Your task to perform on an android device: Add rayovac triple a to the cart on ebay.com, then select checkout. Image 0: 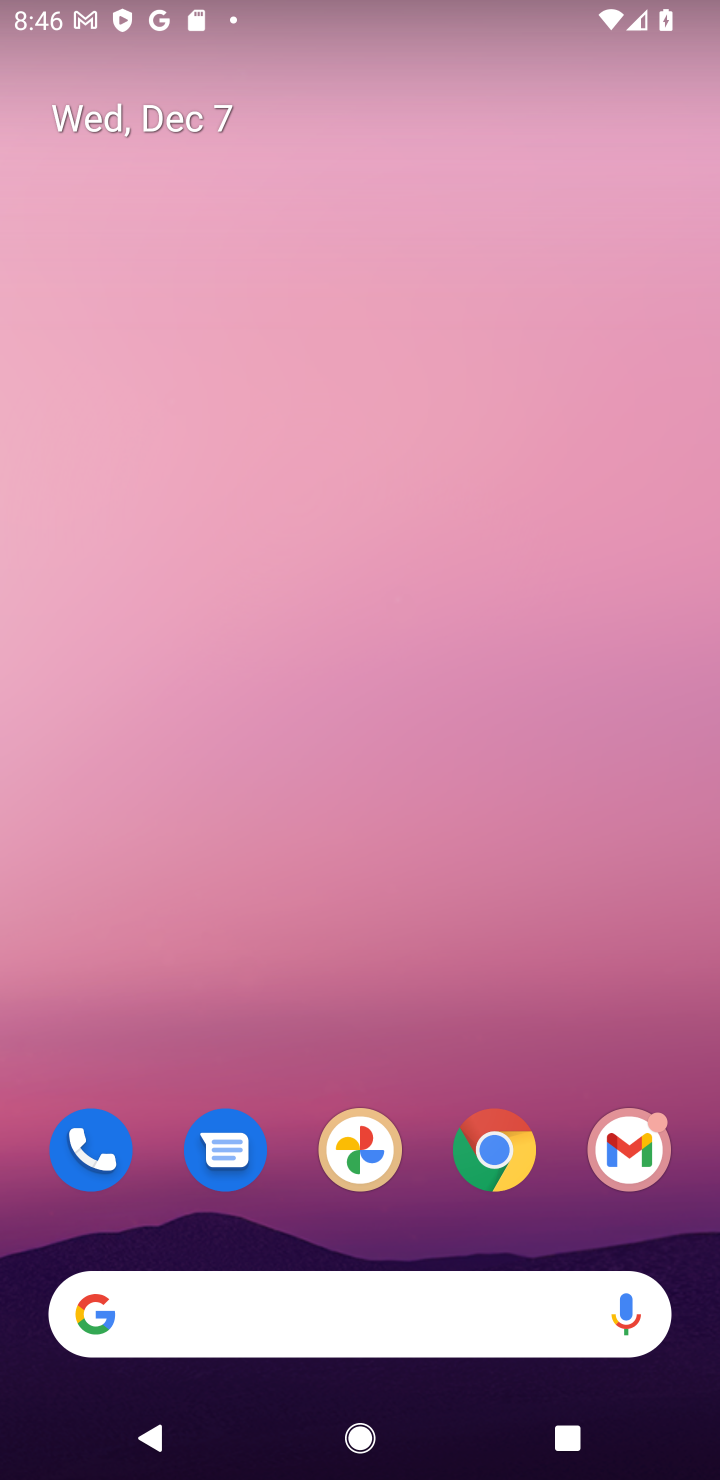
Step 0: click (485, 1142)
Your task to perform on an android device: Add rayovac triple a to the cart on ebay.com, then select checkout. Image 1: 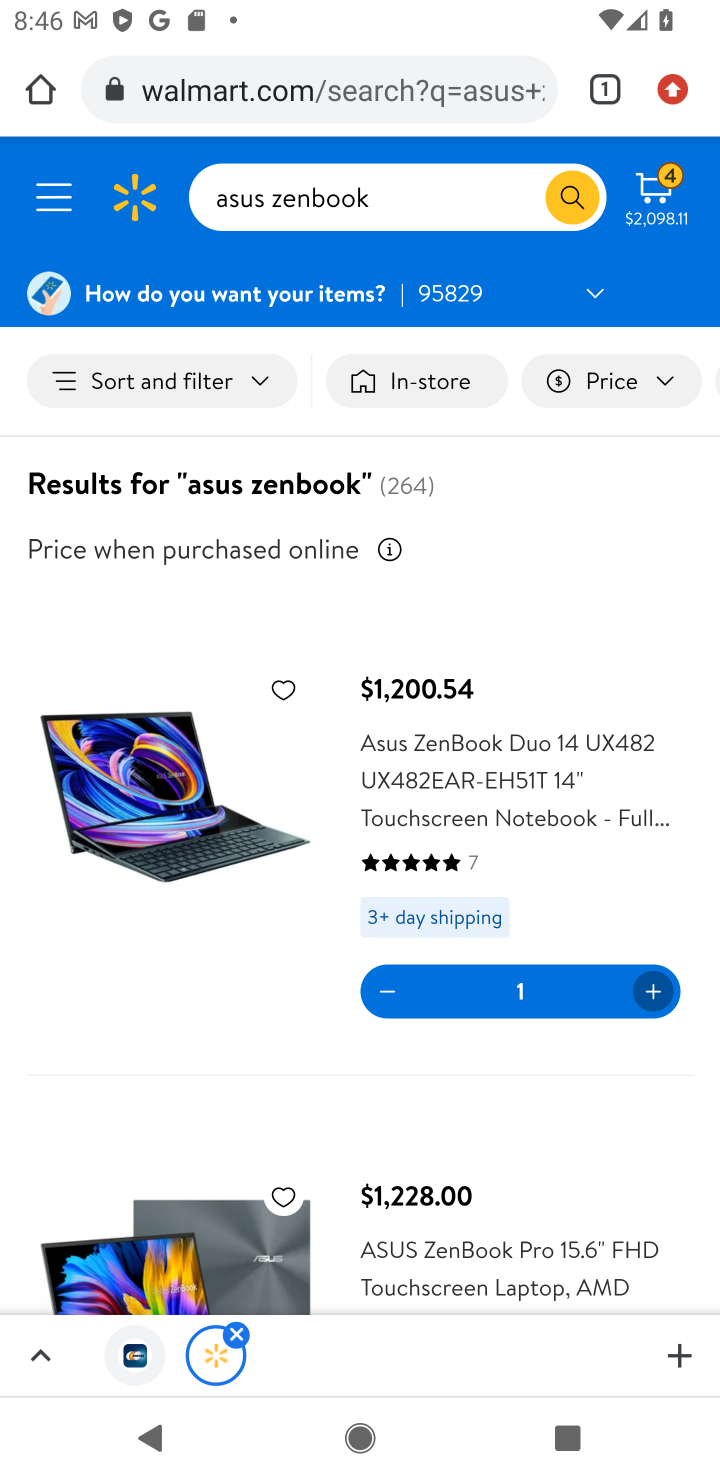
Step 1: click (280, 93)
Your task to perform on an android device: Add rayovac triple a to the cart on ebay.com, then select checkout. Image 2: 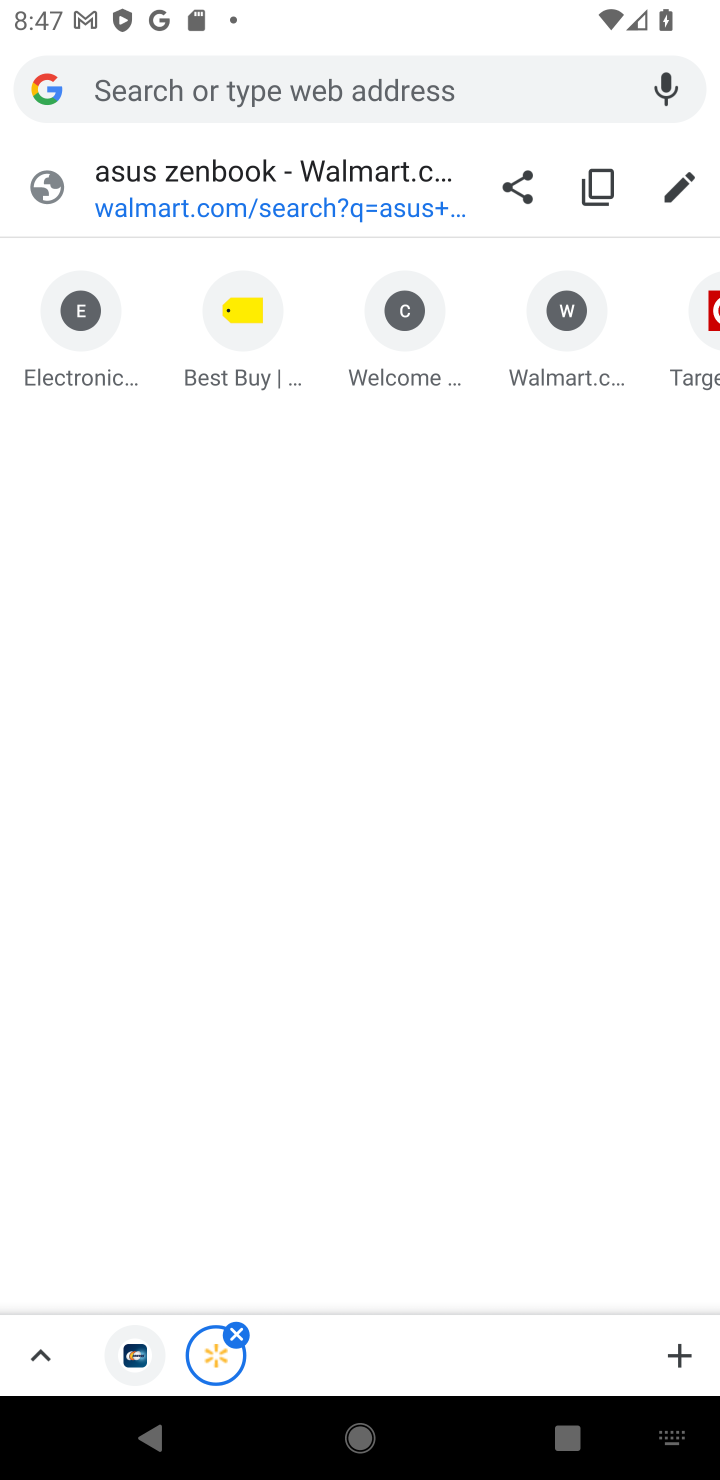
Step 2: type "ebay.com"
Your task to perform on an android device: Add rayovac triple a to the cart on ebay.com, then select checkout. Image 3: 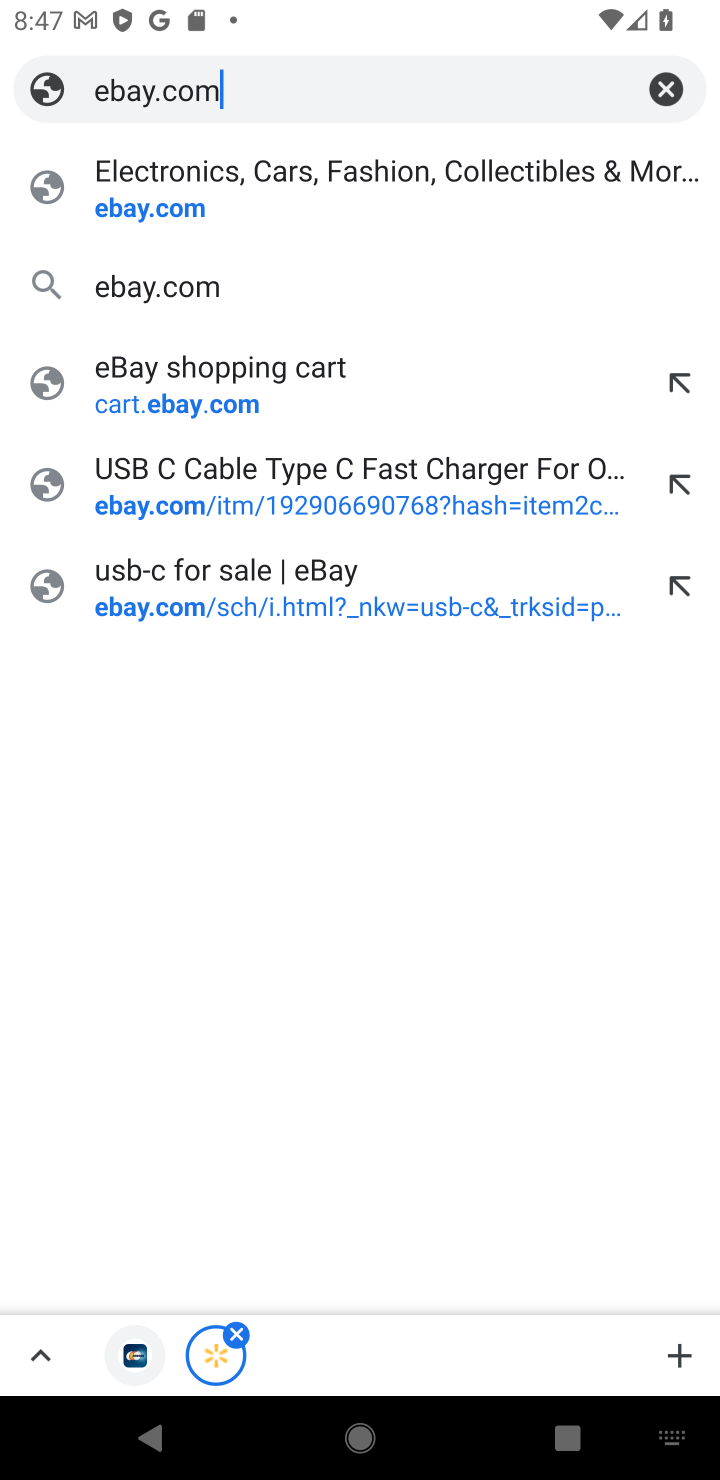
Step 3: press enter
Your task to perform on an android device: Add rayovac triple a to the cart on ebay.com, then select checkout. Image 4: 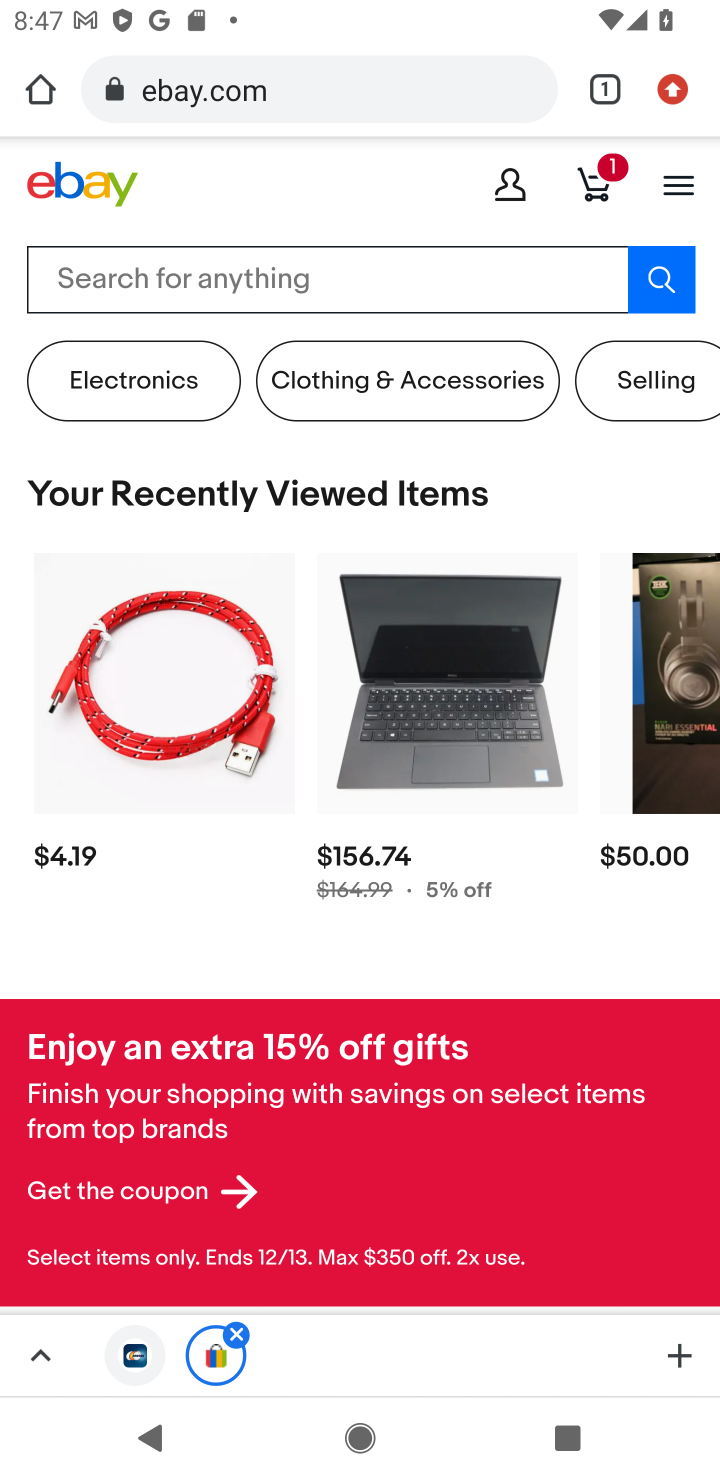
Step 4: click (333, 293)
Your task to perform on an android device: Add rayovac triple a to the cart on ebay.com, then select checkout. Image 5: 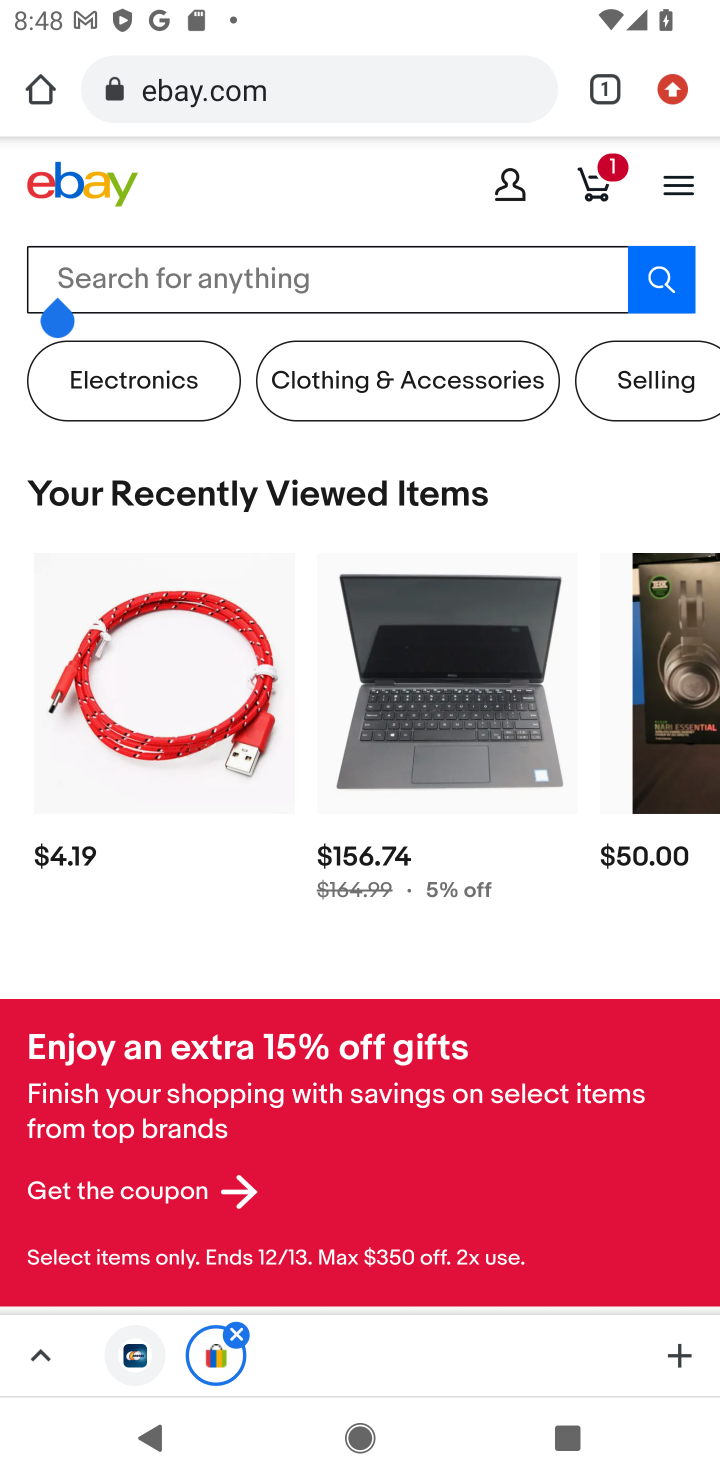
Step 5: type "rayovac triple a"
Your task to perform on an android device: Add rayovac triple a to the cart on ebay.com, then select checkout. Image 6: 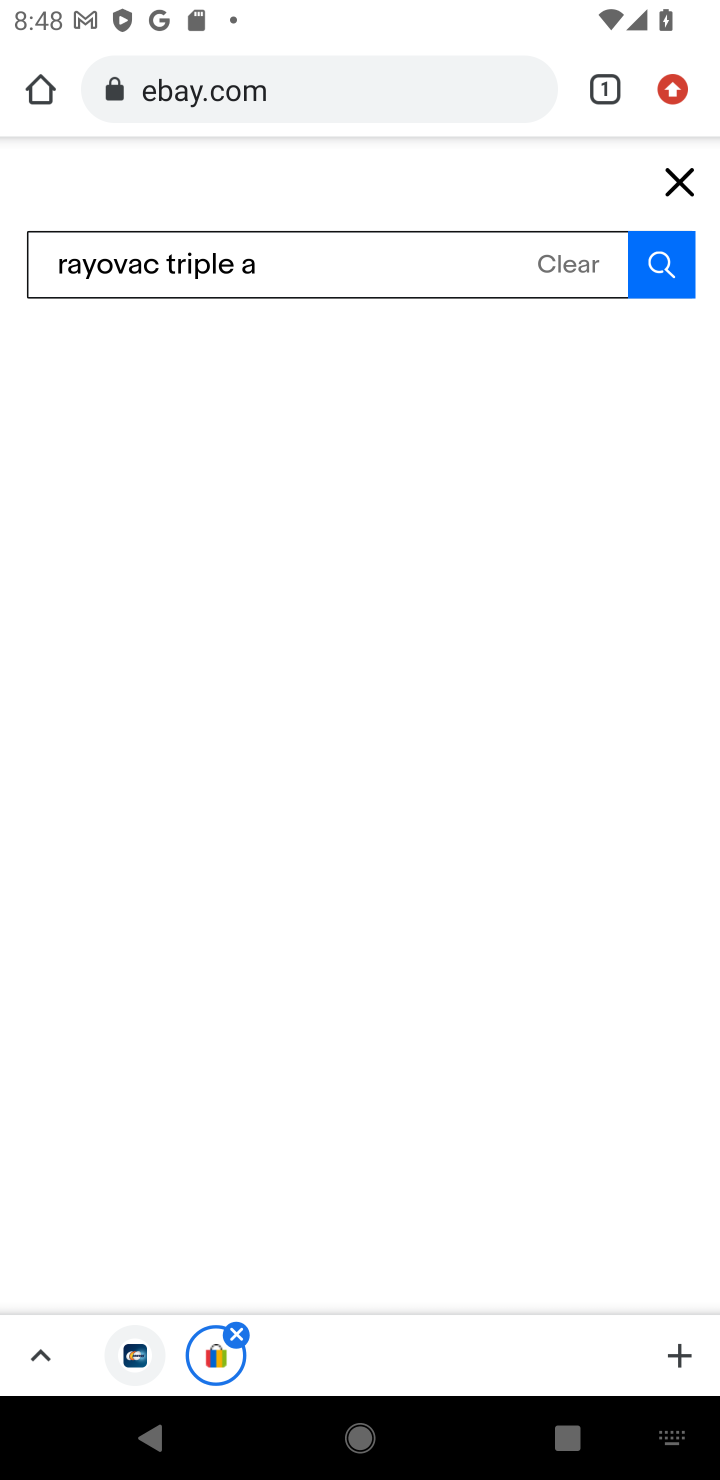
Step 6: click (662, 277)
Your task to perform on an android device: Add rayovac triple a to the cart on ebay.com, then select checkout. Image 7: 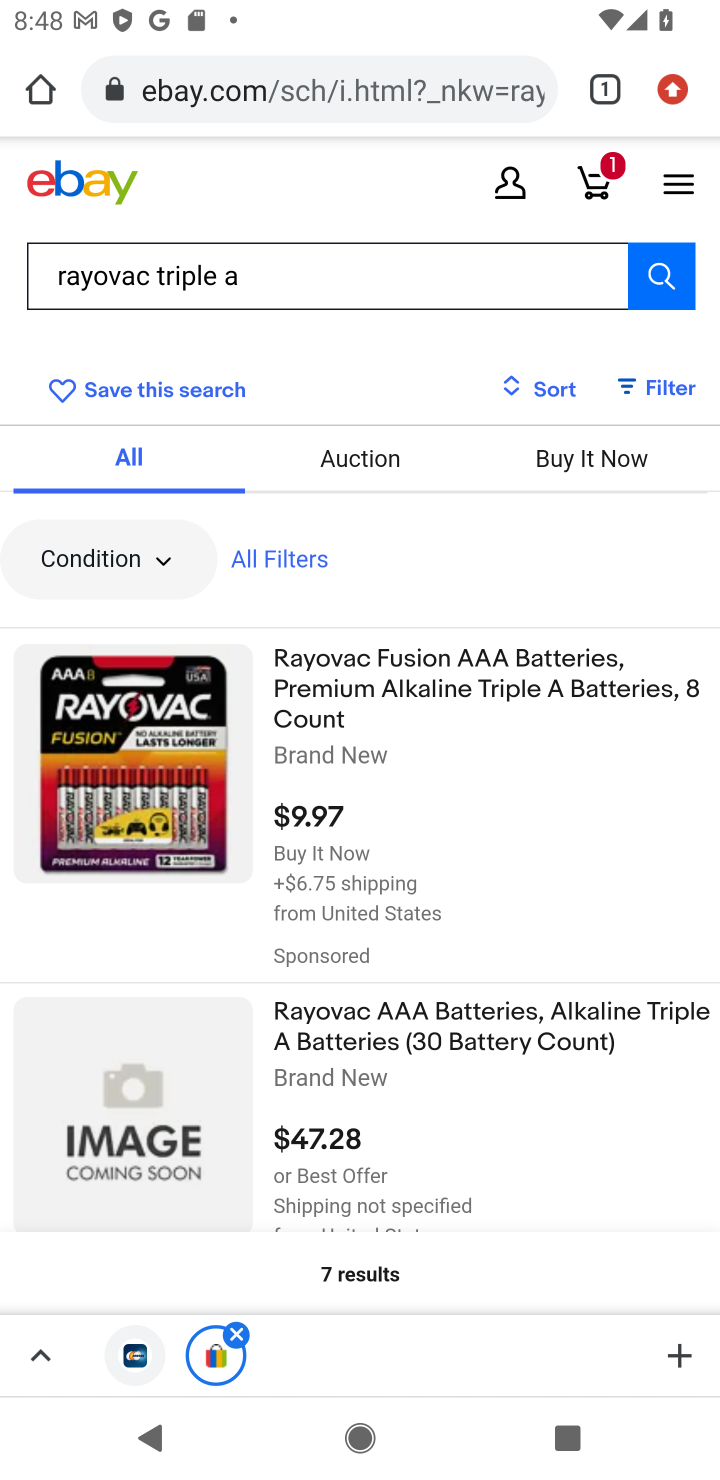
Step 7: click (364, 703)
Your task to perform on an android device: Add rayovac triple a to the cart on ebay.com, then select checkout. Image 8: 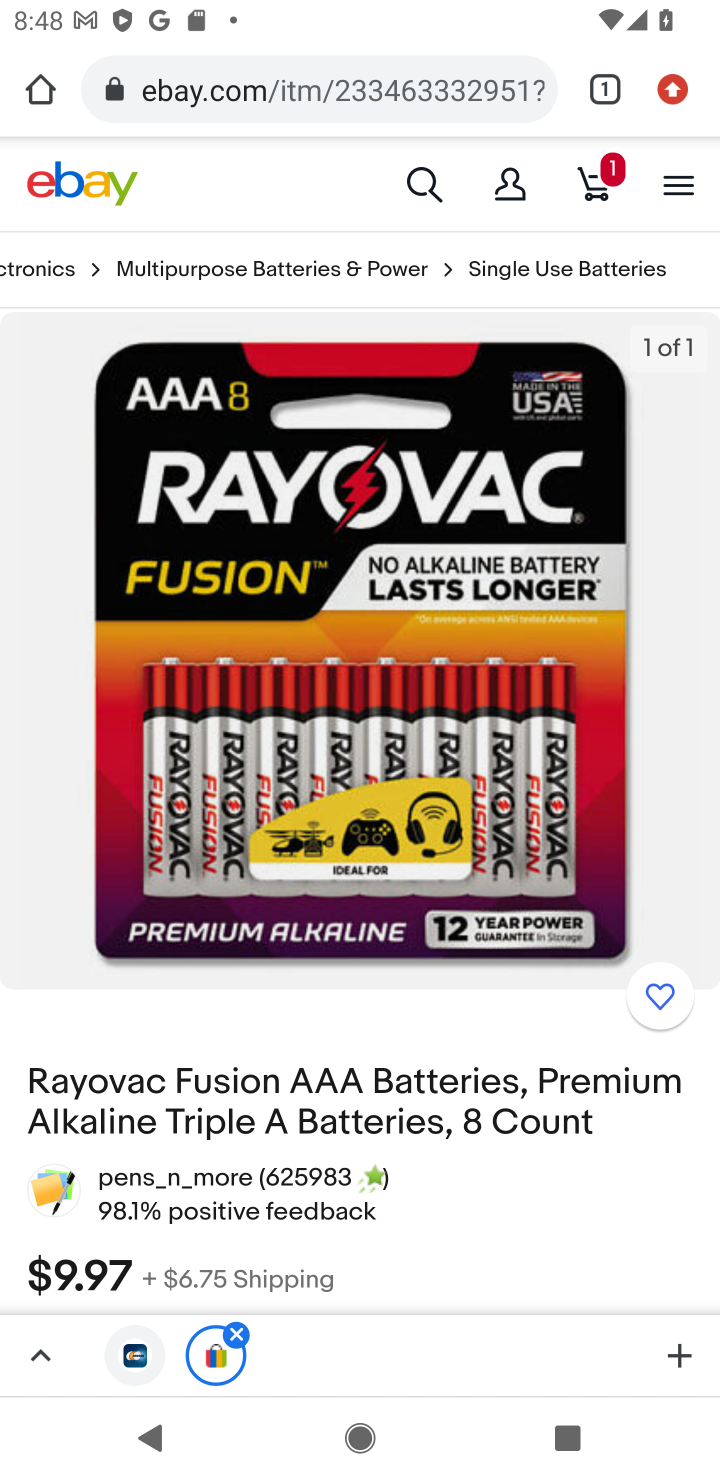
Step 8: drag from (557, 1103) to (461, 427)
Your task to perform on an android device: Add rayovac triple a to the cart on ebay.com, then select checkout. Image 9: 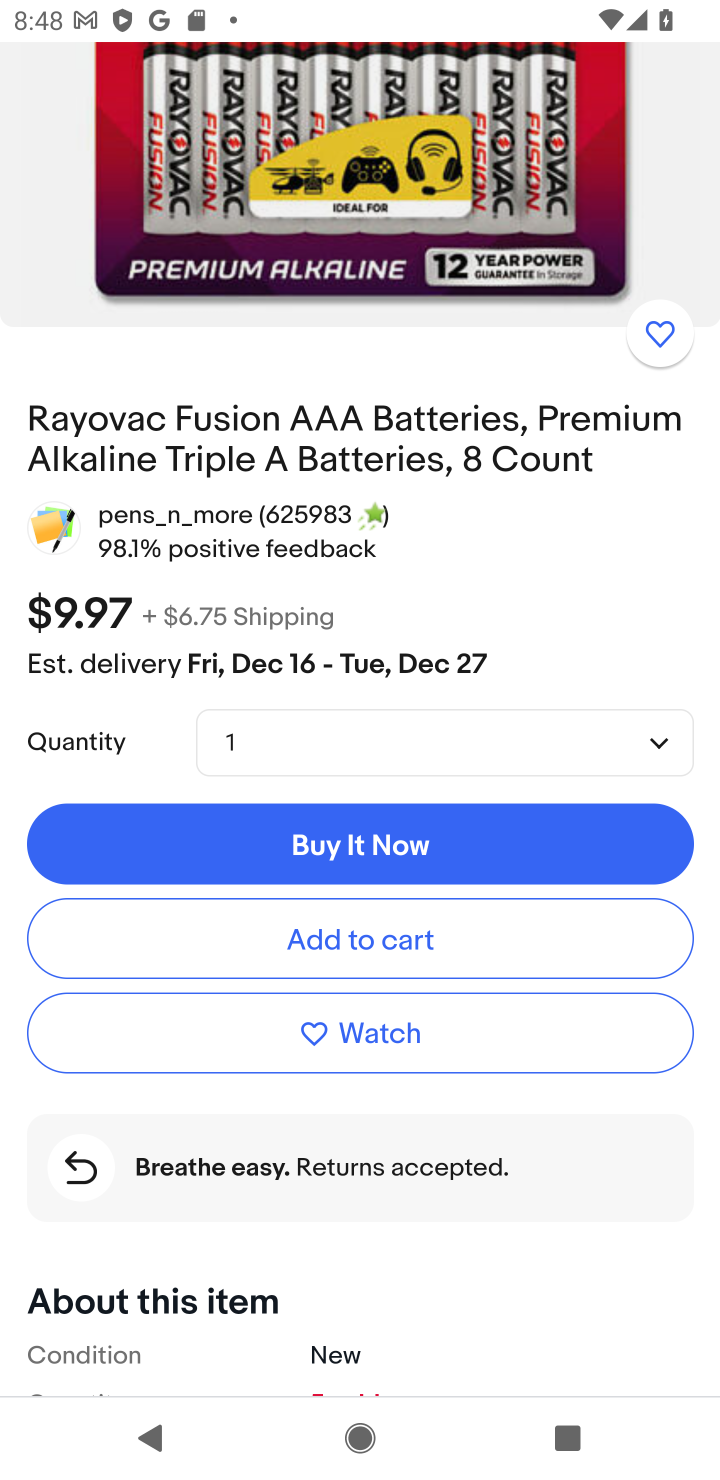
Step 9: click (409, 945)
Your task to perform on an android device: Add rayovac triple a to the cart on ebay.com, then select checkout. Image 10: 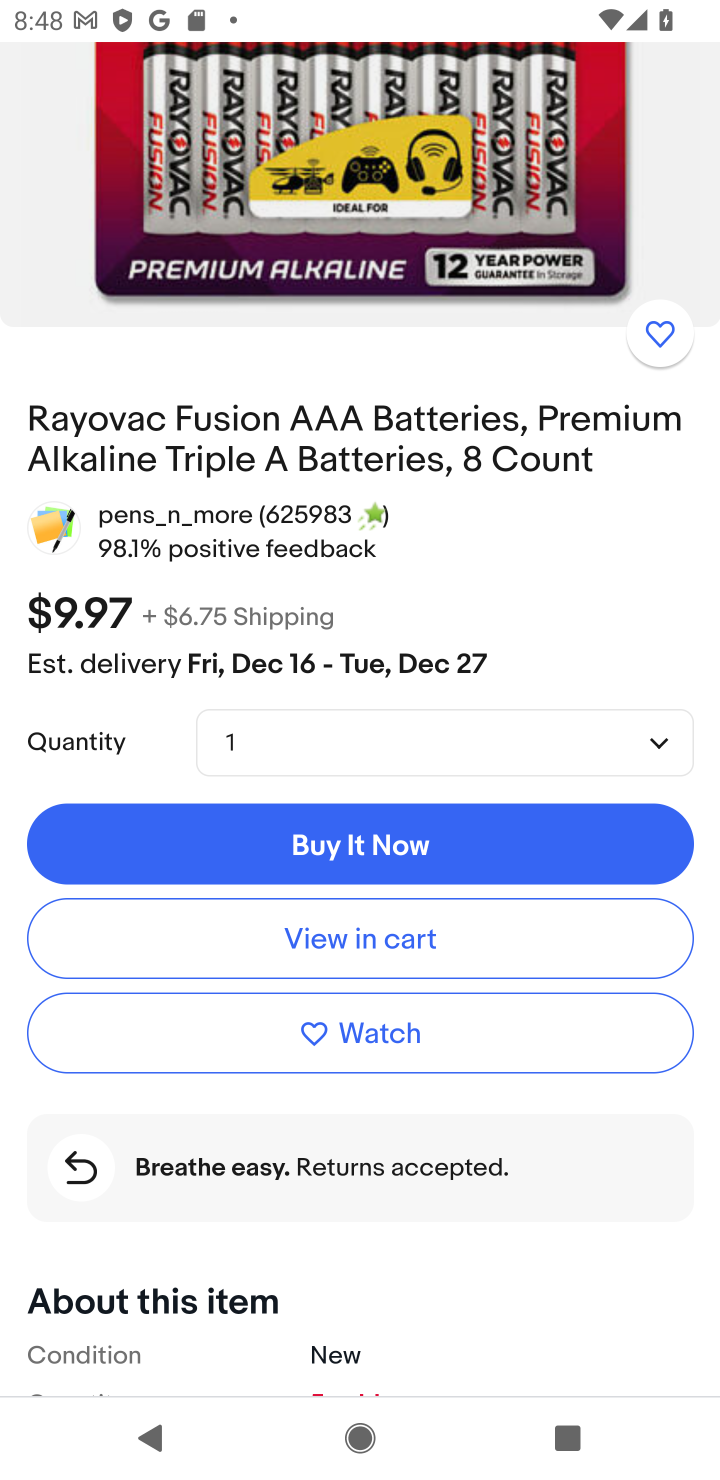
Step 10: click (405, 944)
Your task to perform on an android device: Add rayovac triple a to the cart on ebay.com, then select checkout. Image 11: 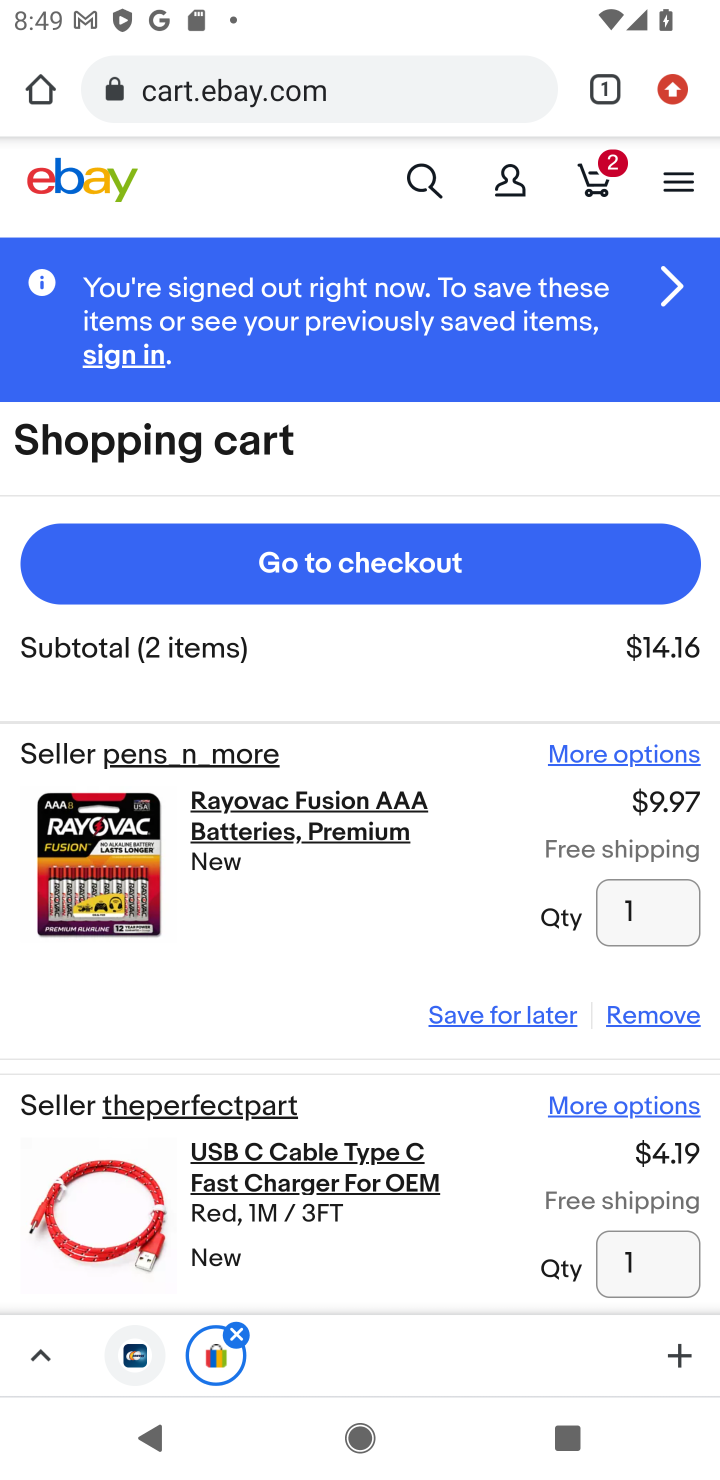
Step 11: click (471, 575)
Your task to perform on an android device: Add rayovac triple a to the cart on ebay.com, then select checkout. Image 12: 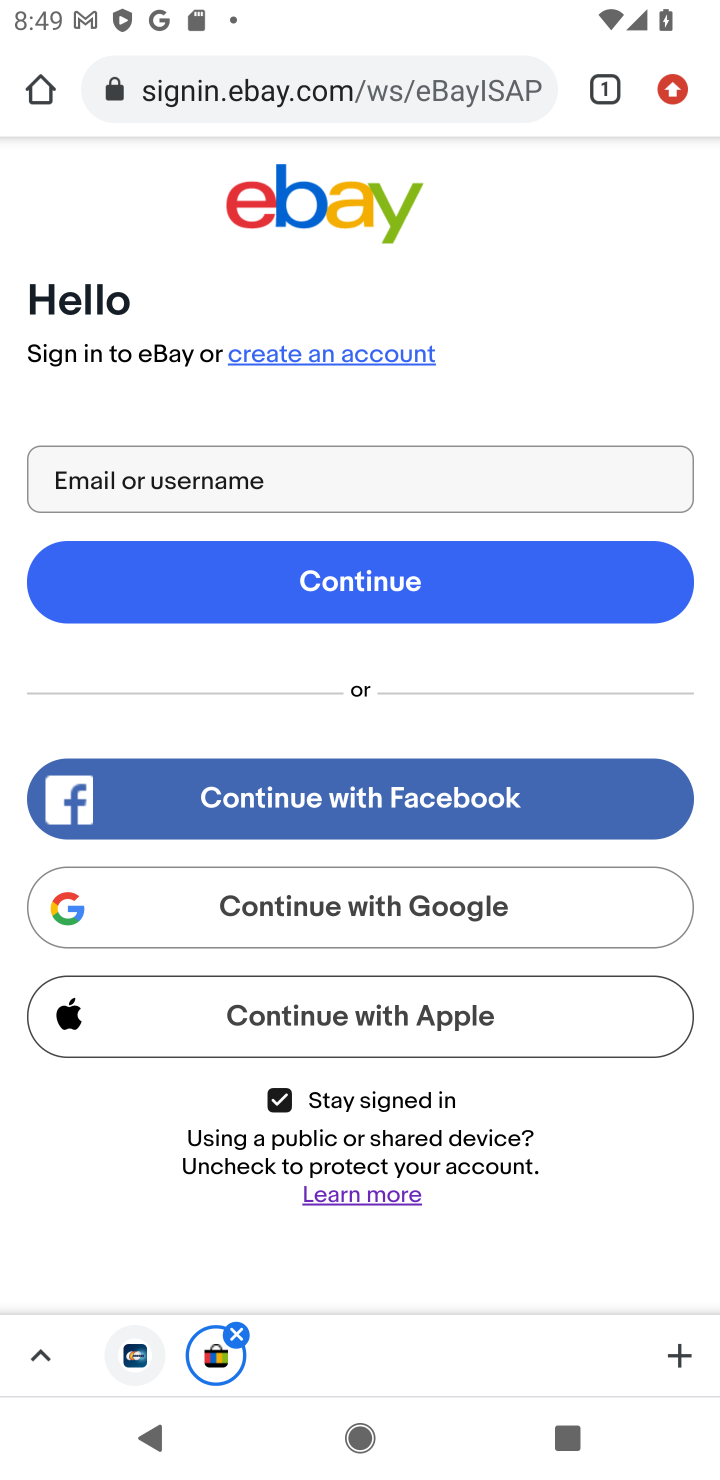
Step 12: task complete